Your task to perform on an android device: Go to Android settings Image 0: 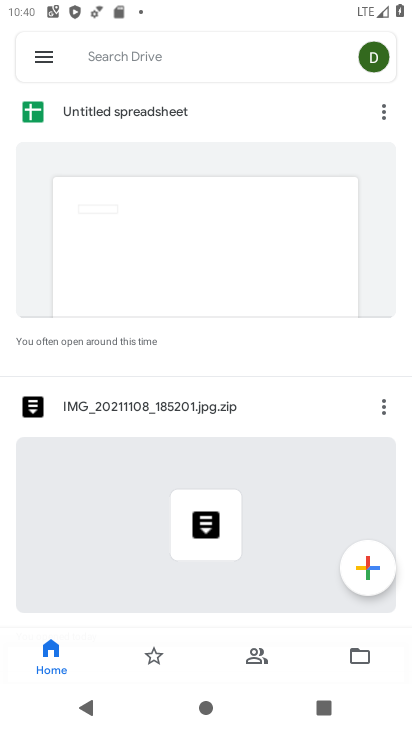
Step 0: press home button
Your task to perform on an android device: Go to Android settings Image 1: 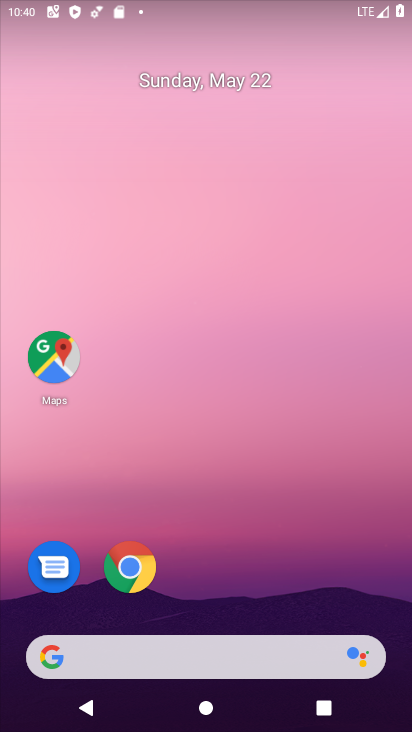
Step 1: drag from (386, 613) to (314, 59)
Your task to perform on an android device: Go to Android settings Image 2: 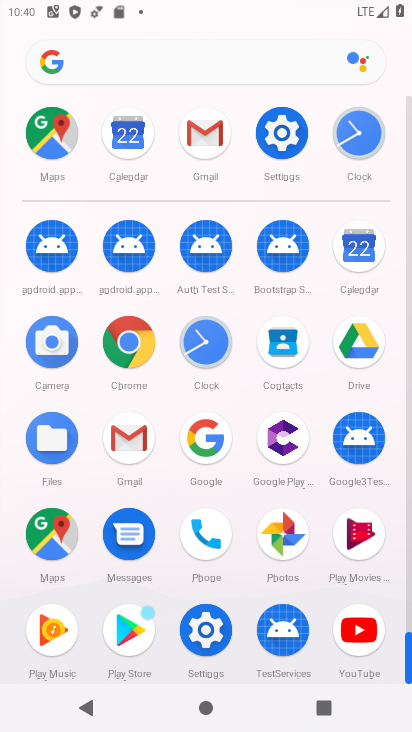
Step 2: click (205, 629)
Your task to perform on an android device: Go to Android settings Image 3: 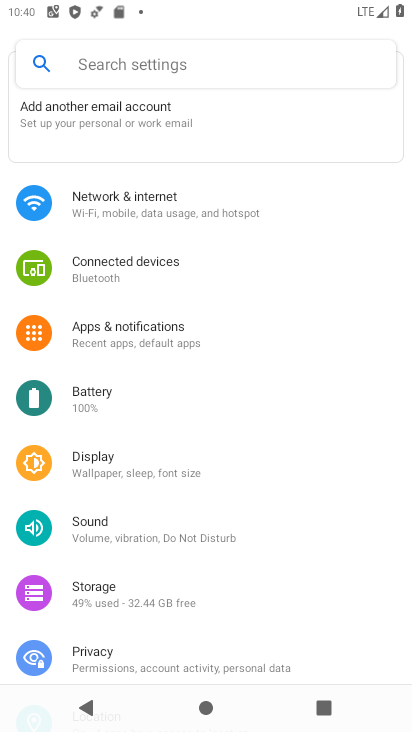
Step 3: drag from (359, 648) to (336, 202)
Your task to perform on an android device: Go to Android settings Image 4: 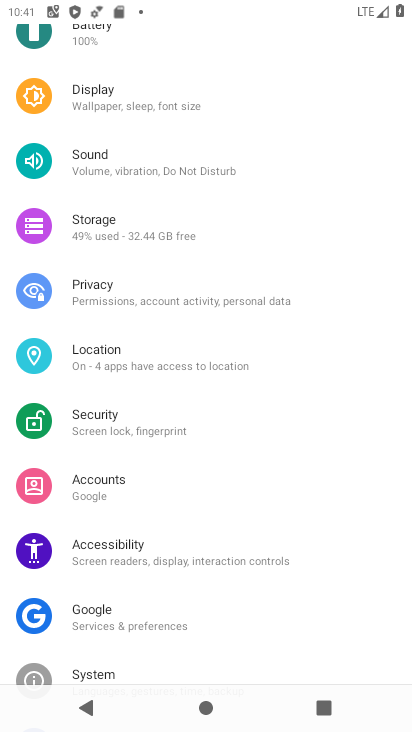
Step 4: drag from (356, 682) to (329, 209)
Your task to perform on an android device: Go to Android settings Image 5: 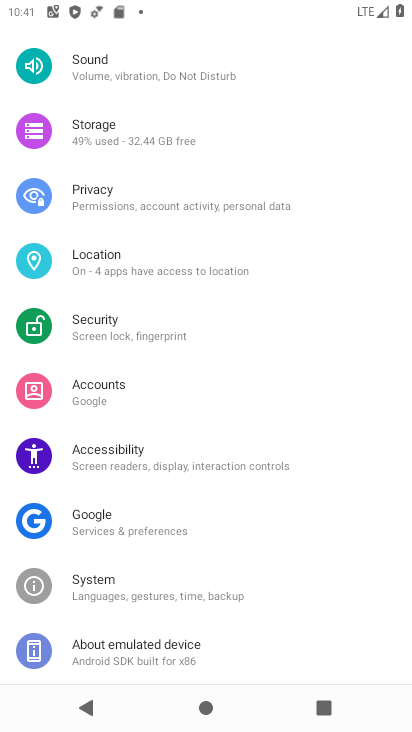
Step 5: click (114, 646)
Your task to perform on an android device: Go to Android settings Image 6: 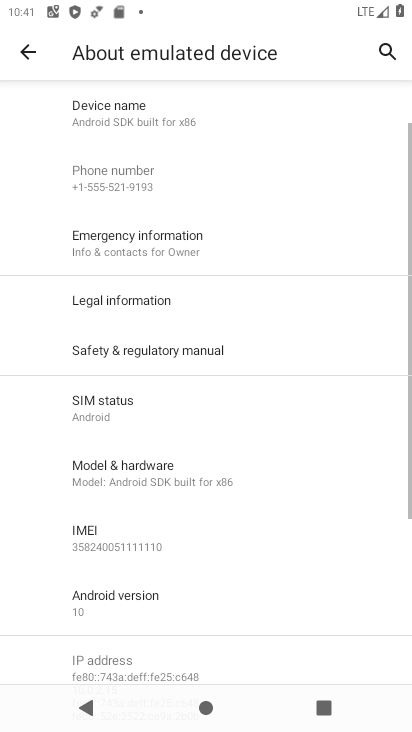
Step 6: task complete